Your task to perform on an android device: Do I have any events this weekend? Image 0: 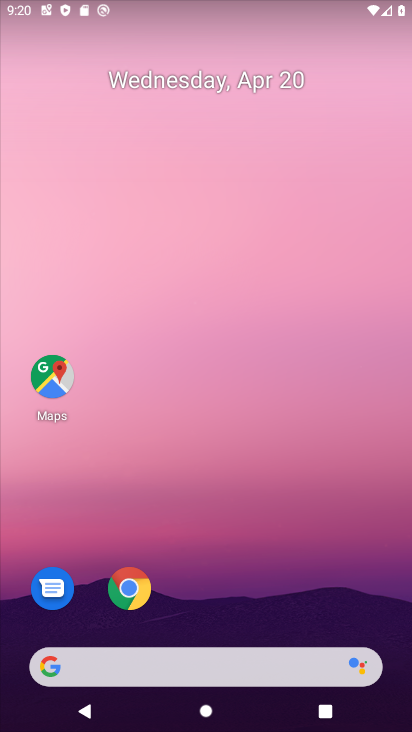
Step 0: drag from (217, 602) to (163, 198)
Your task to perform on an android device: Do I have any events this weekend? Image 1: 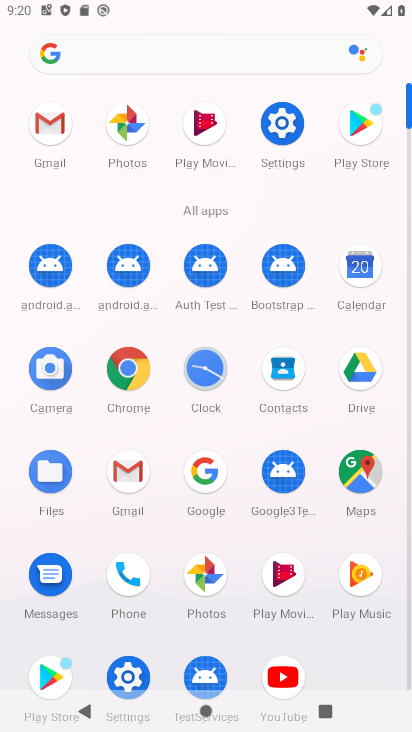
Step 1: click (353, 271)
Your task to perform on an android device: Do I have any events this weekend? Image 2: 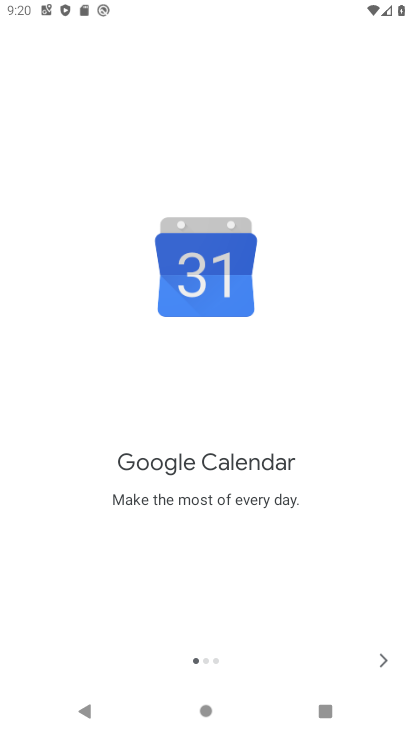
Step 2: click (373, 656)
Your task to perform on an android device: Do I have any events this weekend? Image 3: 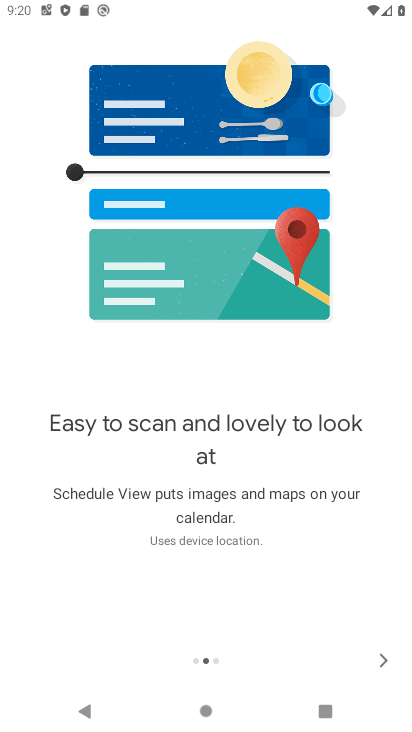
Step 3: click (375, 656)
Your task to perform on an android device: Do I have any events this weekend? Image 4: 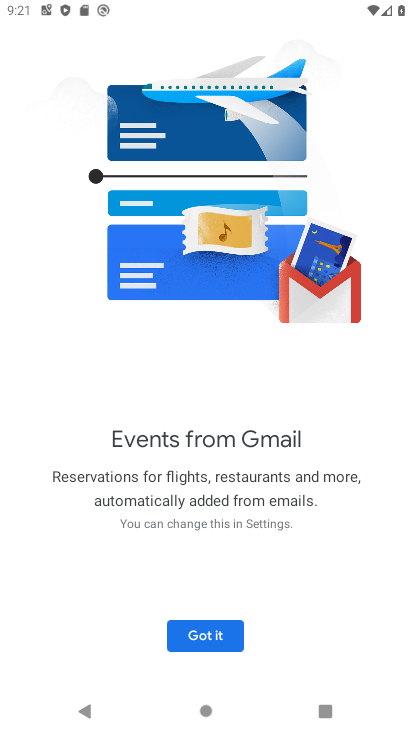
Step 4: click (200, 638)
Your task to perform on an android device: Do I have any events this weekend? Image 5: 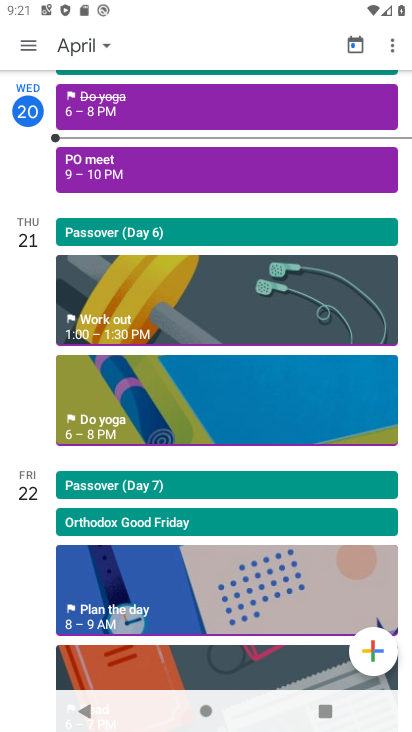
Step 5: drag from (178, 558) to (168, 252)
Your task to perform on an android device: Do I have any events this weekend? Image 6: 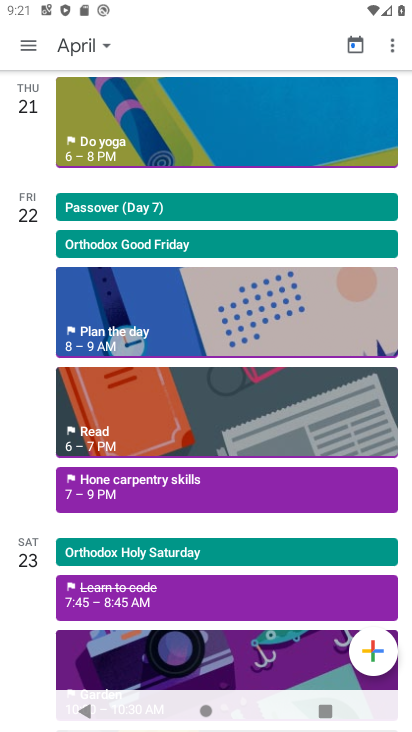
Step 6: drag from (170, 625) to (148, 201)
Your task to perform on an android device: Do I have any events this weekend? Image 7: 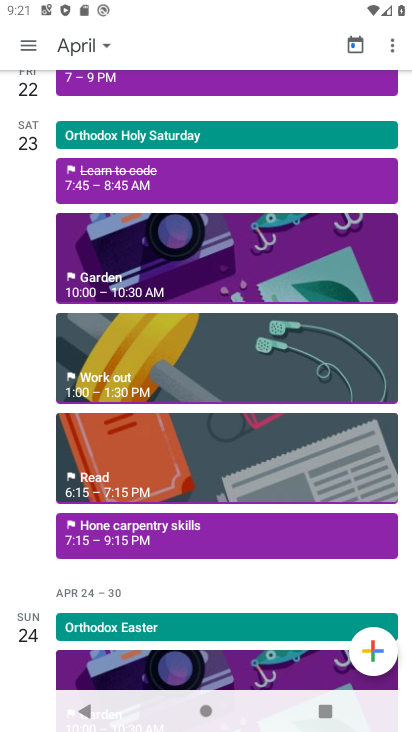
Step 7: click (30, 50)
Your task to perform on an android device: Do I have any events this weekend? Image 8: 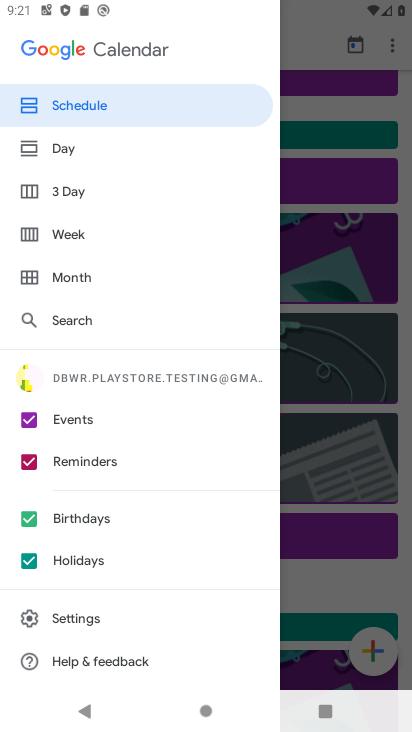
Step 8: click (29, 460)
Your task to perform on an android device: Do I have any events this weekend? Image 9: 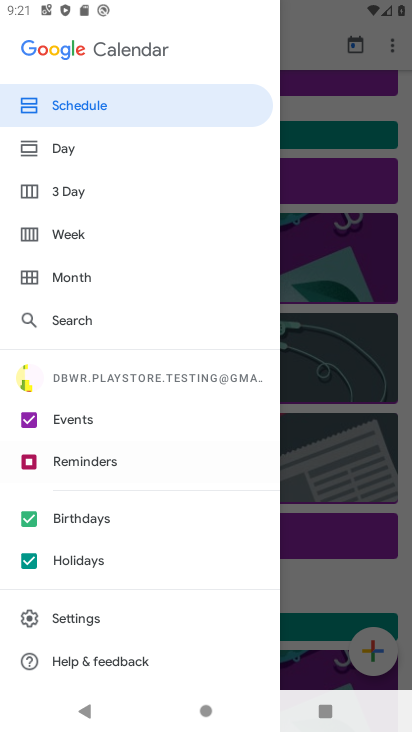
Step 9: click (29, 517)
Your task to perform on an android device: Do I have any events this weekend? Image 10: 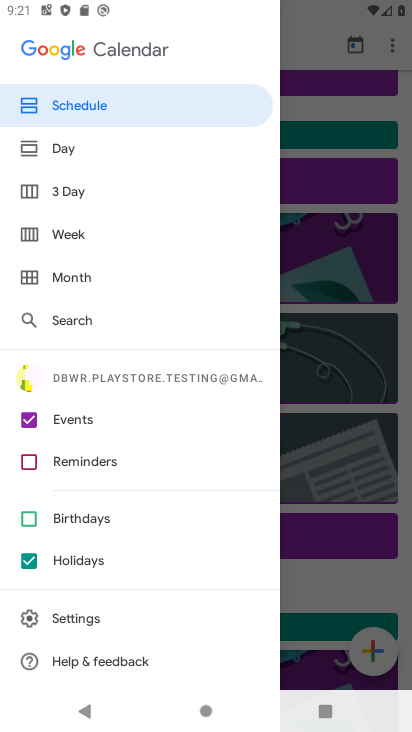
Step 10: click (26, 557)
Your task to perform on an android device: Do I have any events this weekend? Image 11: 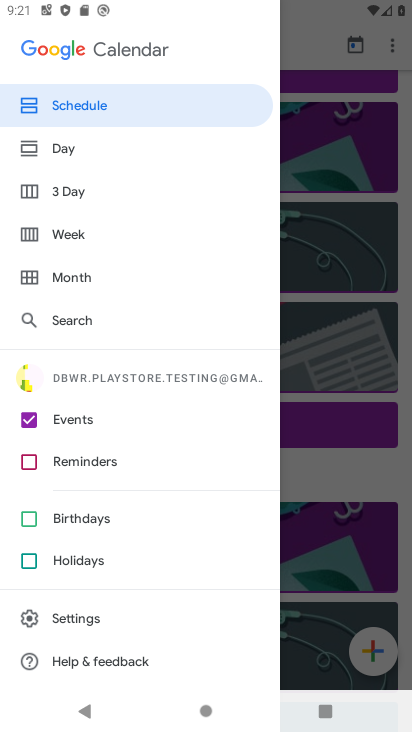
Step 11: task complete